Your task to perform on an android device: turn on improve location accuracy Image 0: 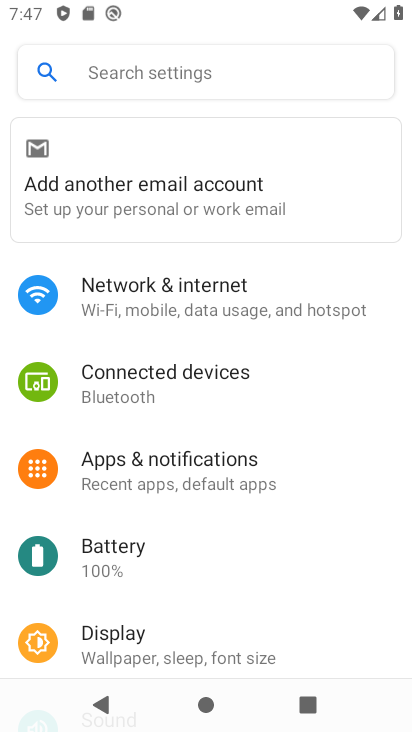
Step 0: drag from (287, 580) to (301, 205)
Your task to perform on an android device: turn on improve location accuracy Image 1: 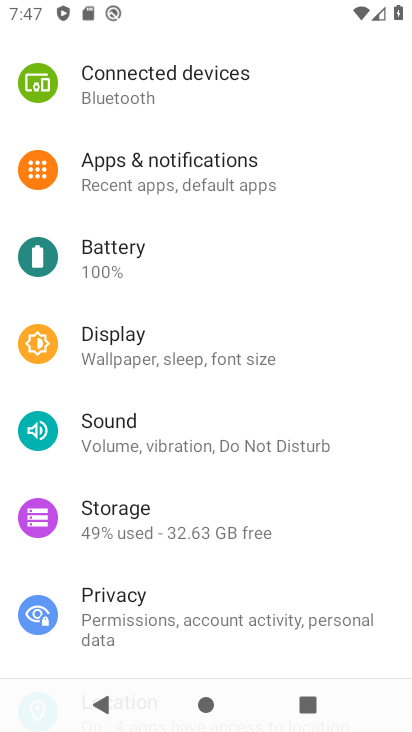
Step 1: drag from (159, 574) to (211, 258)
Your task to perform on an android device: turn on improve location accuracy Image 2: 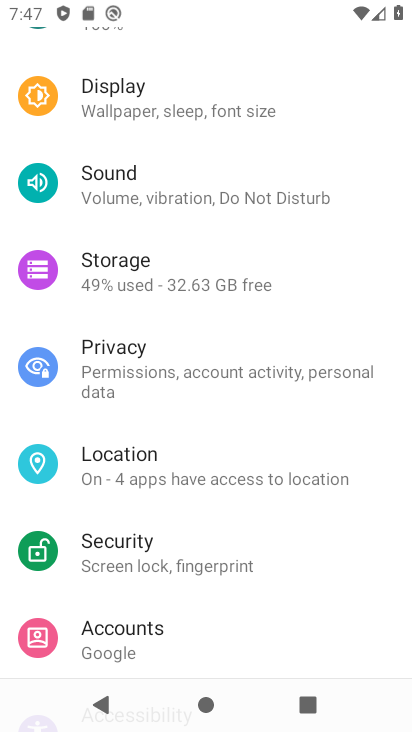
Step 2: click (154, 468)
Your task to perform on an android device: turn on improve location accuracy Image 3: 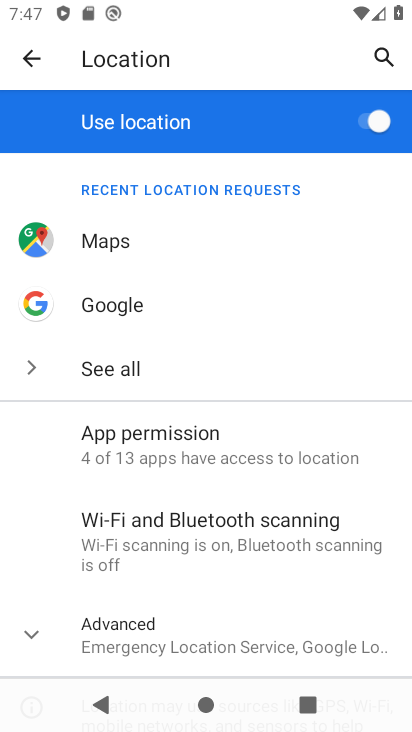
Step 3: click (147, 649)
Your task to perform on an android device: turn on improve location accuracy Image 4: 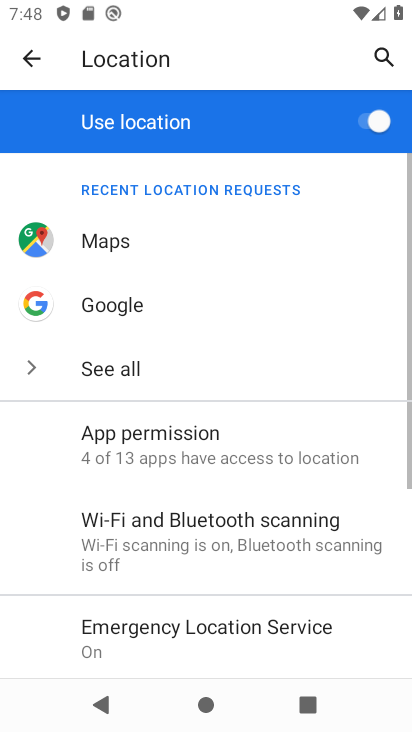
Step 4: drag from (159, 632) to (186, 317)
Your task to perform on an android device: turn on improve location accuracy Image 5: 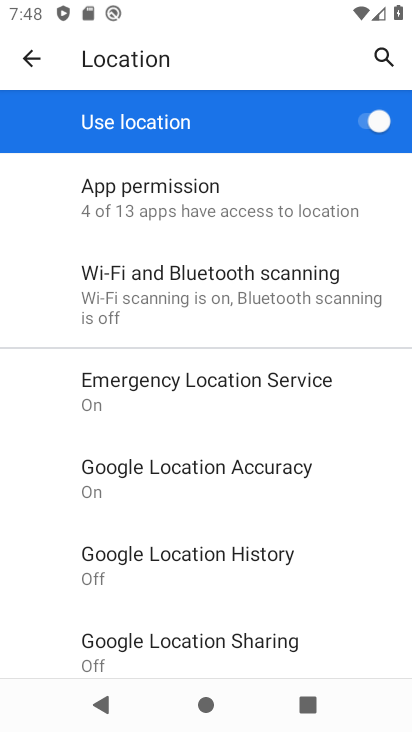
Step 5: click (164, 471)
Your task to perform on an android device: turn on improve location accuracy Image 6: 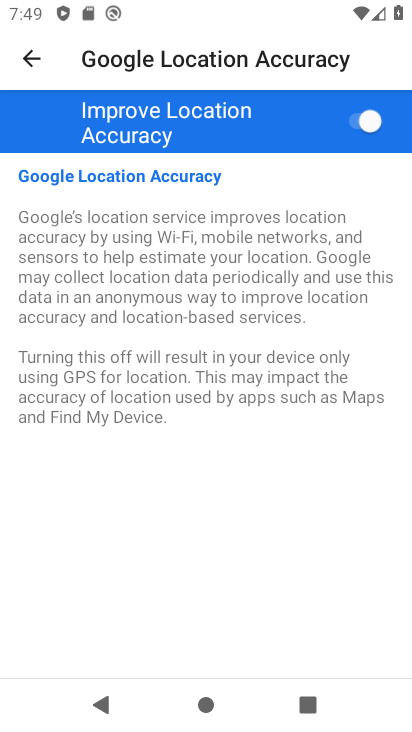
Step 6: task complete